Your task to perform on an android device: Open wifi settings Image 0: 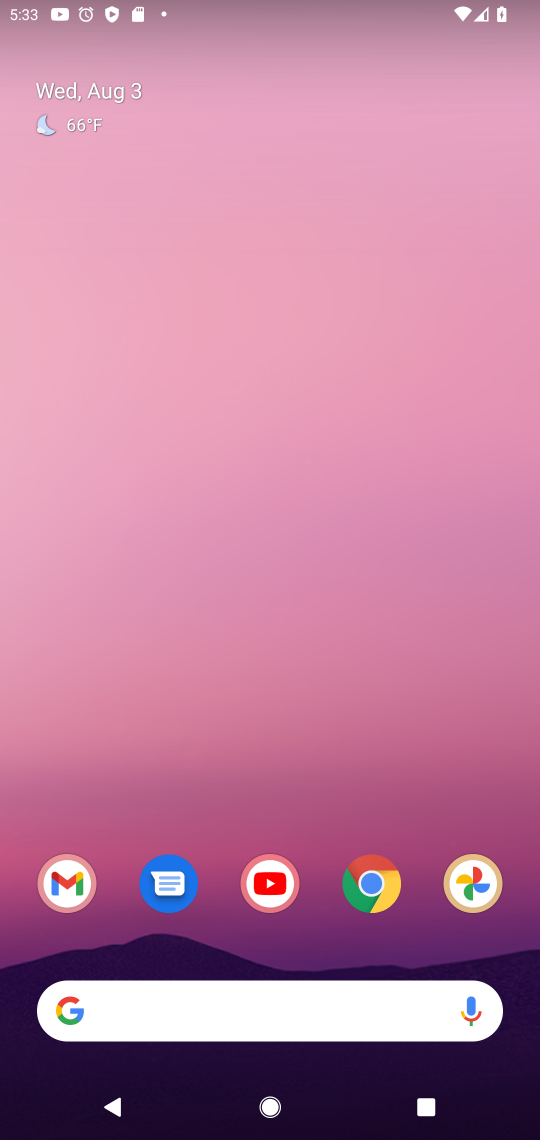
Step 0: drag from (251, 875) to (249, 219)
Your task to perform on an android device: Open wifi settings Image 1: 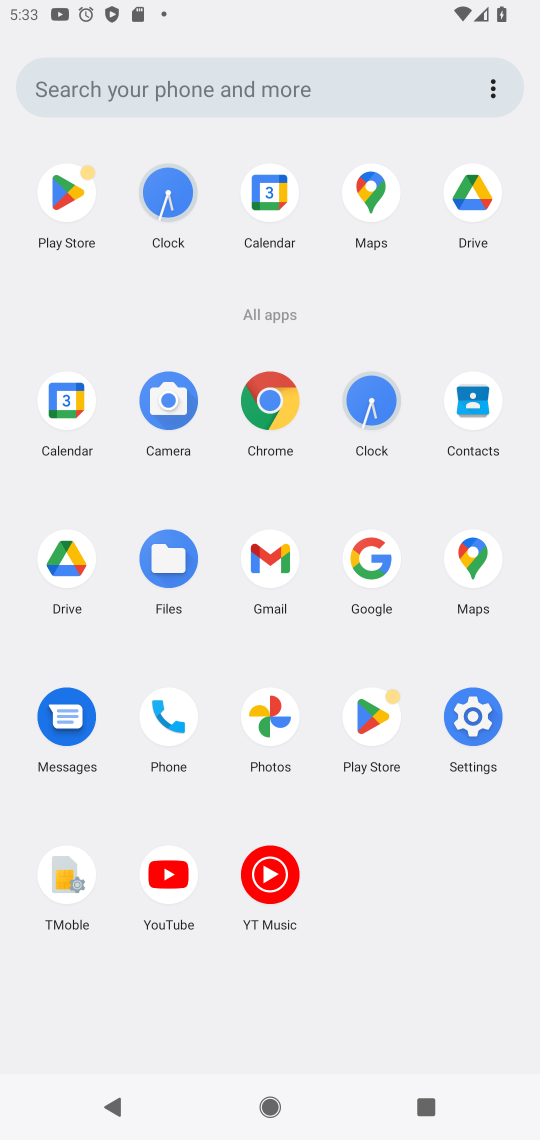
Step 1: click (455, 720)
Your task to perform on an android device: Open wifi settings Image 2: 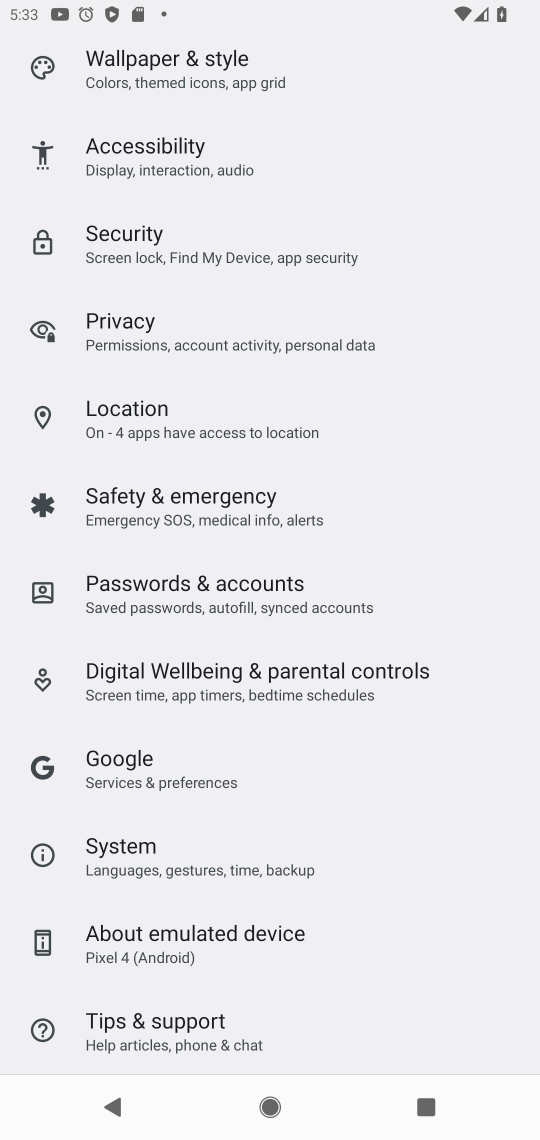
Step 2: drag from (260, 94) to (289, 823)
Your task to perform on an android device: Open wifi settings Image 3: 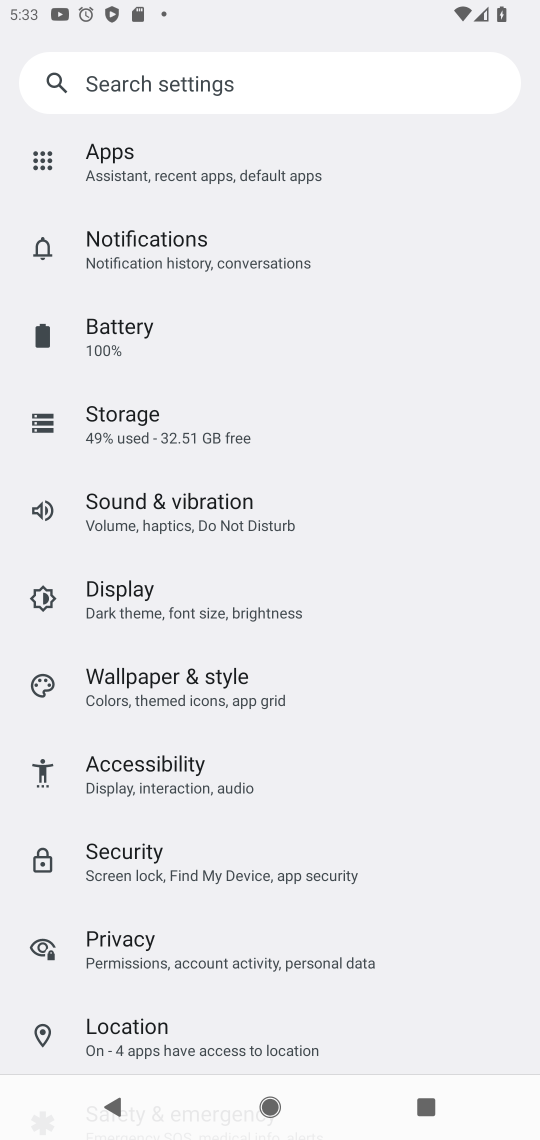
Step 3: drag from (176, 181) to (177, 741)
Your task to perform on an android device: Open wifi settings Image 4: 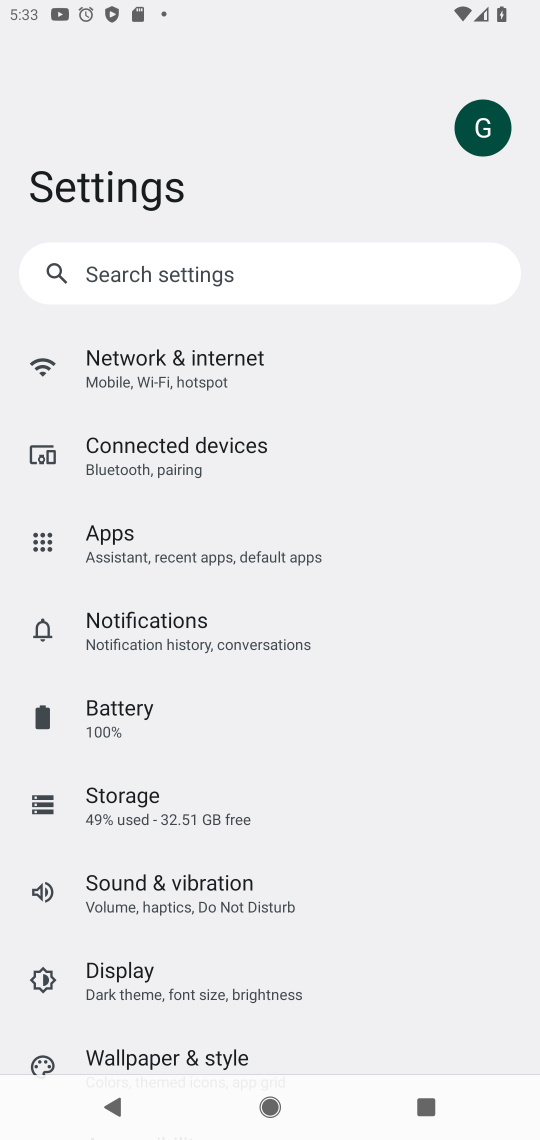
Step 4: click (143, 356)
Your task to perform on an android device: Open wifi settings Image 5: 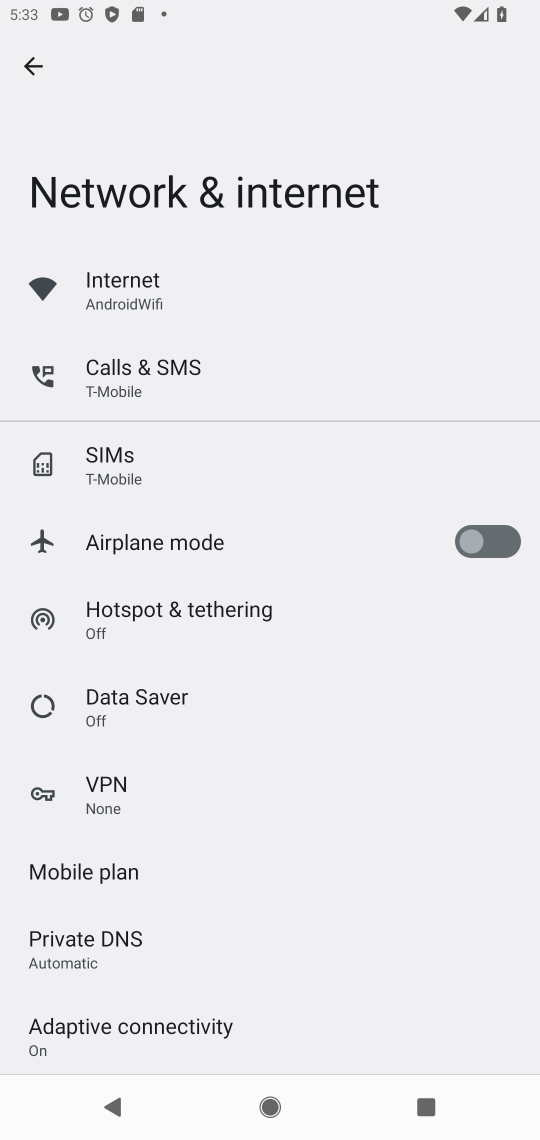
Step 5: click (104, 291)
Your task to perform on an android device: Open wifi settings Image 6: 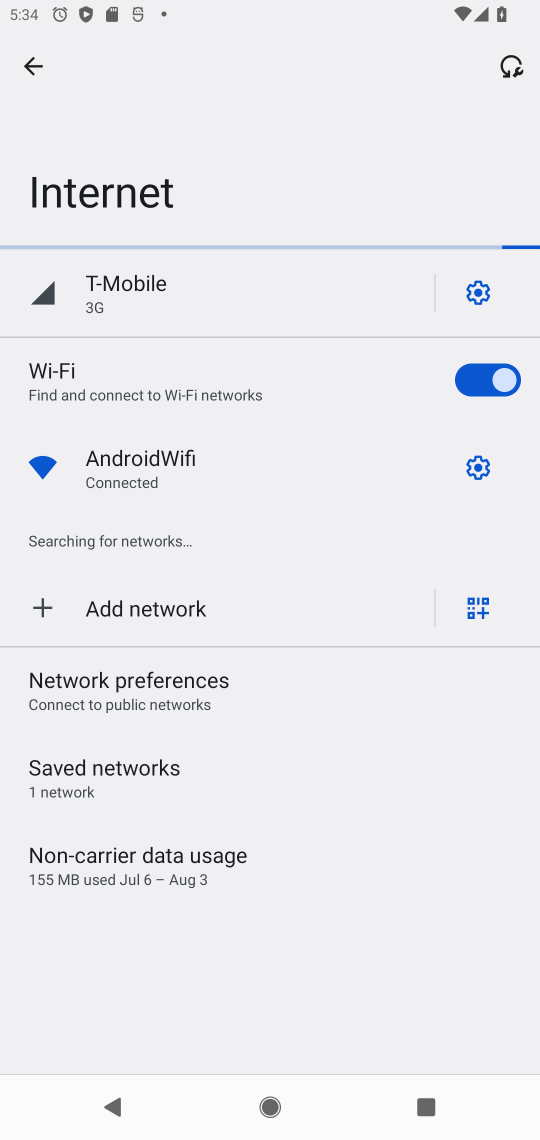
Step 6: click (479, 293)
Your task to perform on an android device: Open wifi settings Image 7: 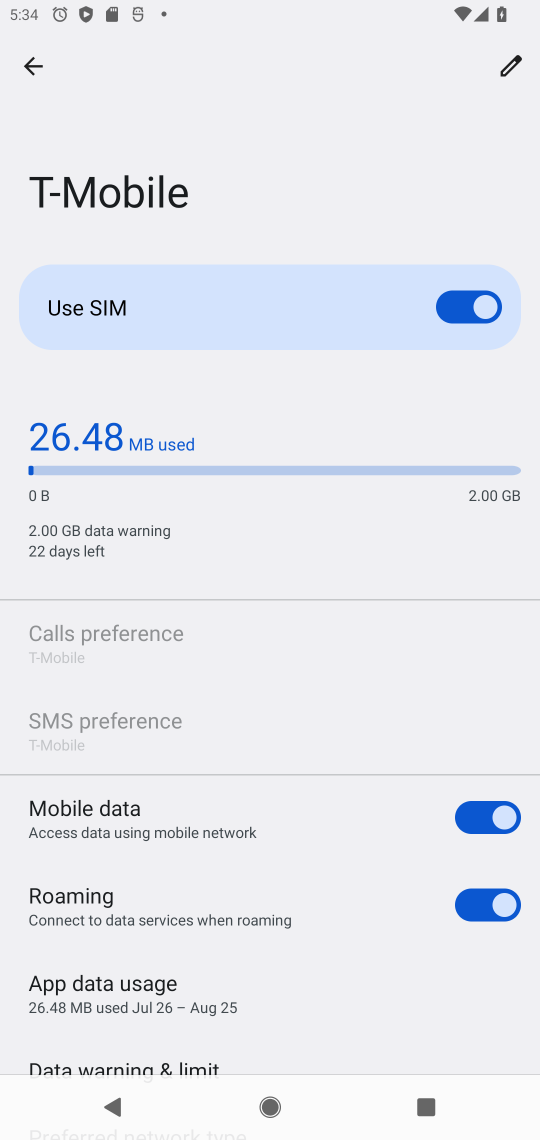
Step 7: task complete